Your task to perform on an android device: turn on wifi Image 0: 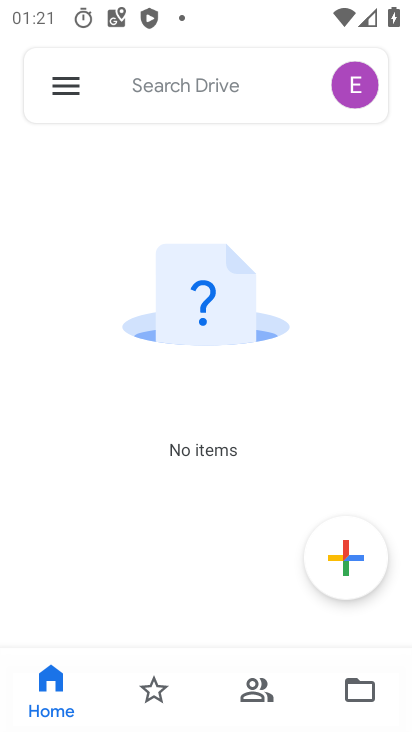
Step 0: drag from (136, 11) to (176, 604)
Your task to perform on an android device: turn on wifi Image 1: 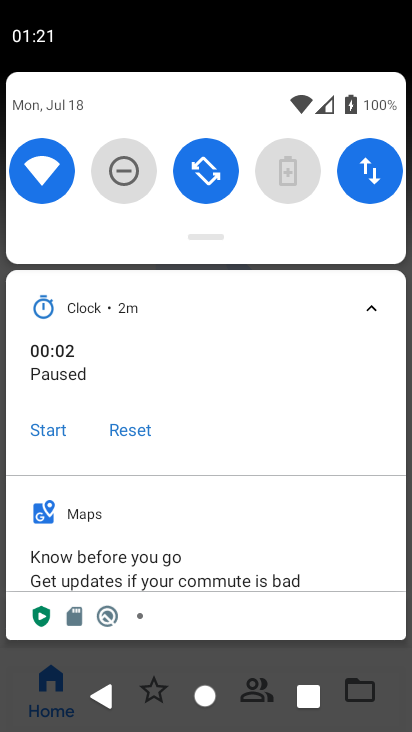
Step 1: task complete